Your task to perform on an android device: turn notification dots off Image 0: 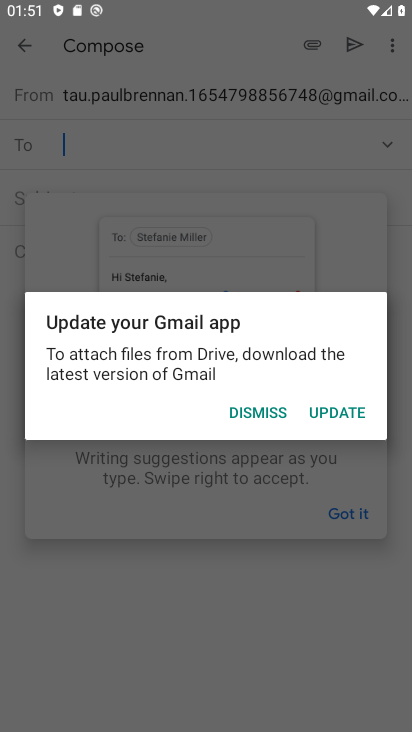
Step 0: press home button
Your task to perform on an android device: turn notification dots off Image 1: 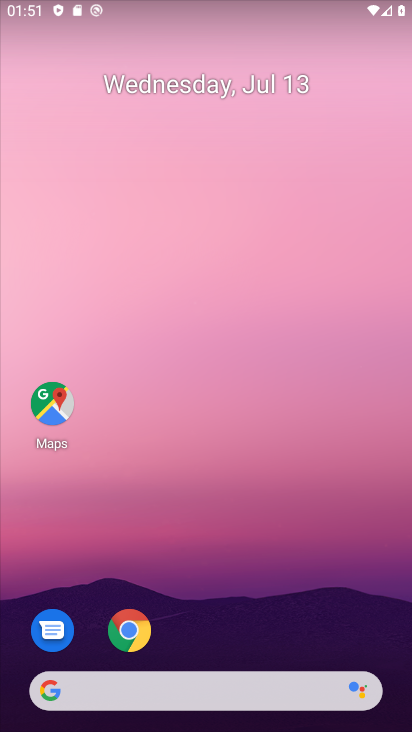
Step 1: drag from (212, 624) to (212, 232)
Your task to perform on an android device: turn notification dots off Image 2: 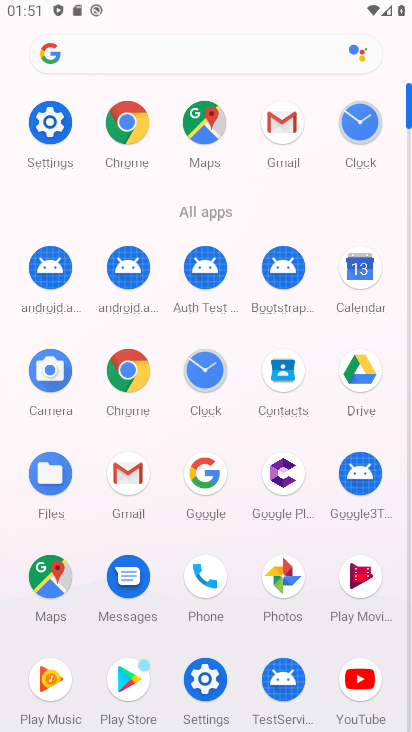
Step 2: click (64, 122)
Your task to perform on an android device: turn notification dots off Image 3: 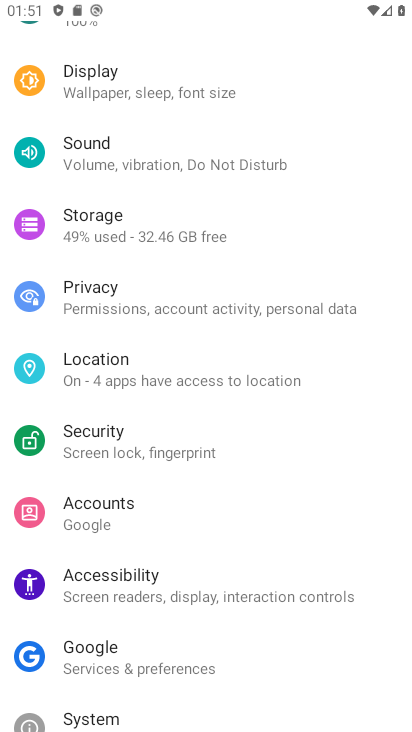
Step 3: drag from (229, 185) to (237, 373)
Your task to perform on an android device: turn notification dots off Image 4: 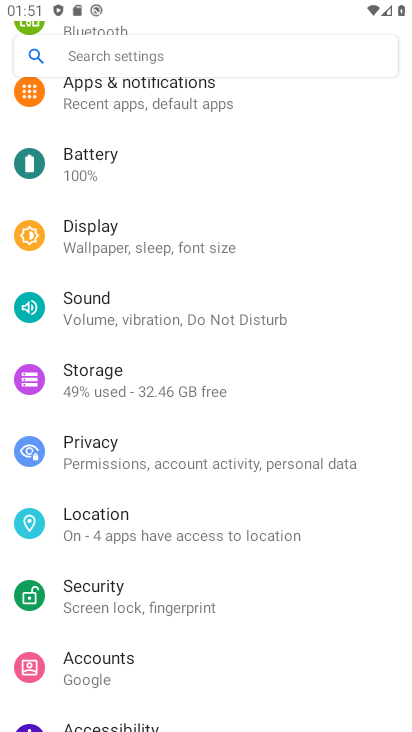
Step 4: click (203, 116)
Your task to perform on an android device: turn notification dots off Image 5: 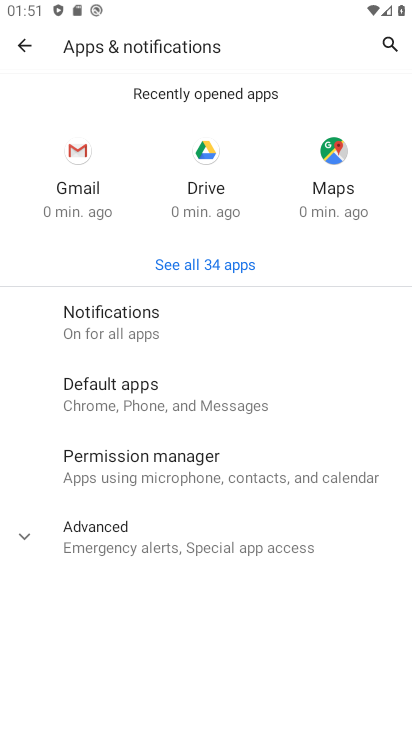
Step 5: click (145, 334)
Your task to perform on an android device: turn notification dots off Image 6: 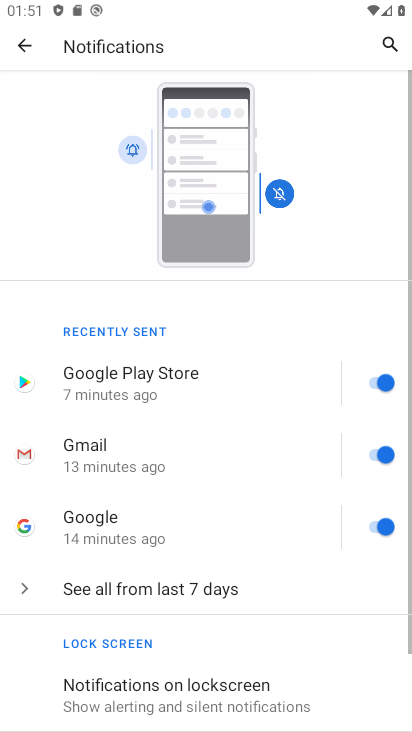
Step 6: drag from (221, 576) to (239, 228)
Your task to perform on an android device: turn notification dots off Image 7: 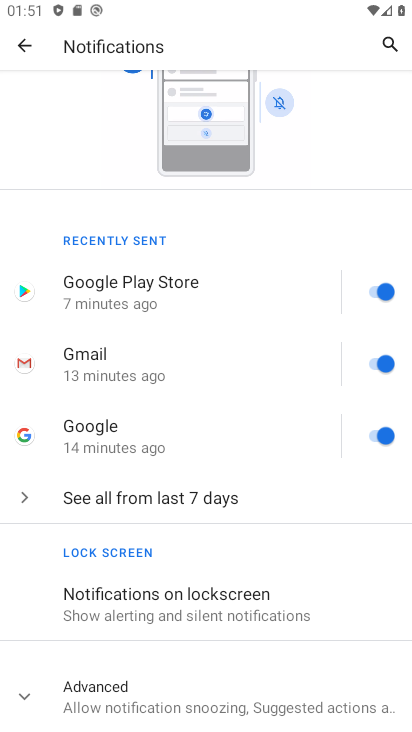
Step 7: click (221, 687)
Your task to perform on an android device: turn notification dots off Image 8: 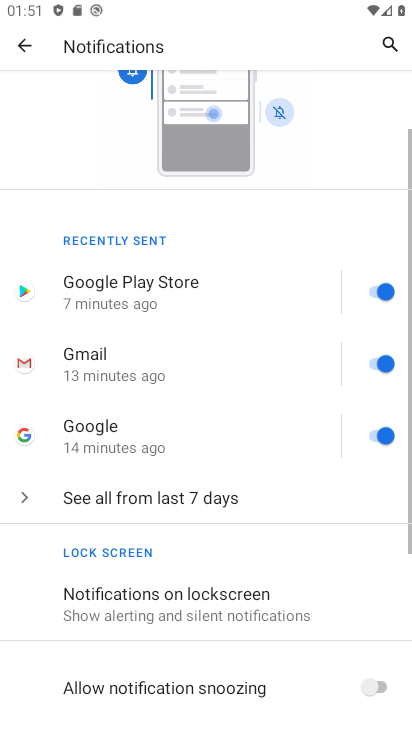
Step 8: drag from (247, 649) to (263, 377)
Your task to perform on an android device: turn notification dots off Image 9: 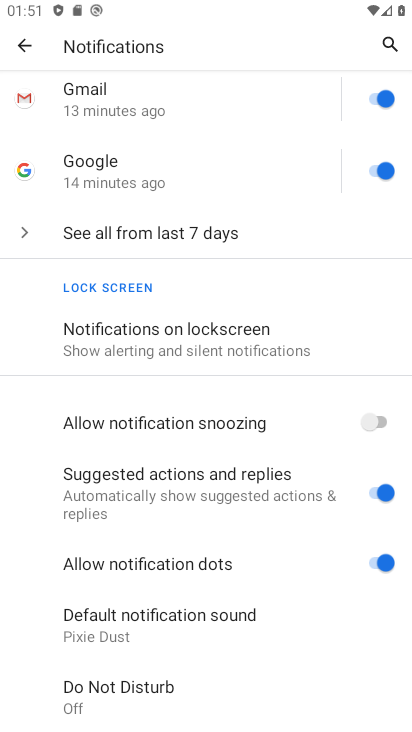
Step 9: click (370, 555)
Your task to perform on an android device: turn notification dots off Image 10: 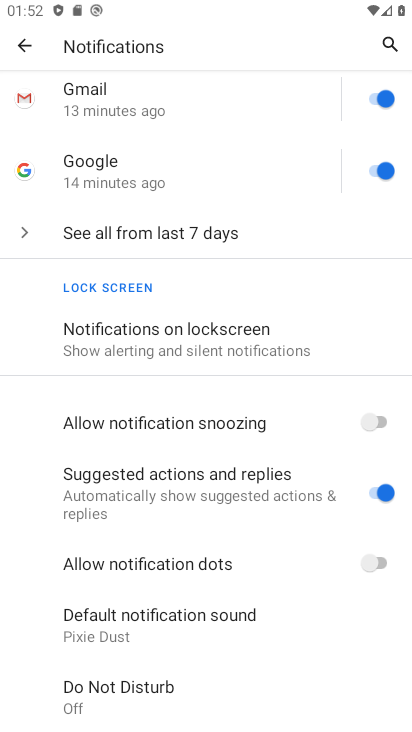
Step 10: task complete